Your task to perform on an android device: Search for seafood restaurants on Google Maps Image 0: 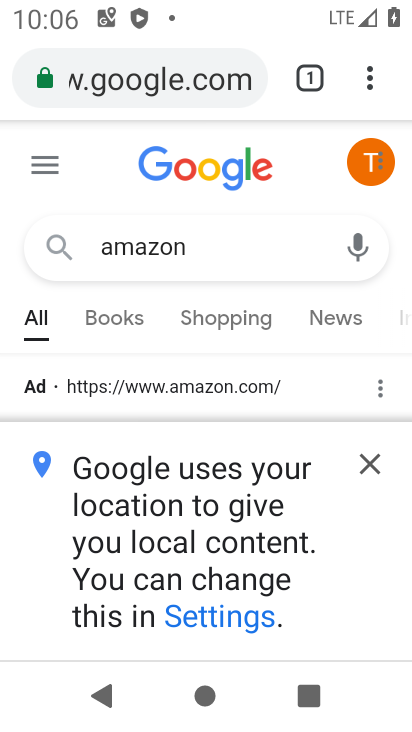
Step 0: press home button
Your task to perform on an android device: Search for seafood restaurants on Google Maps Image 1: 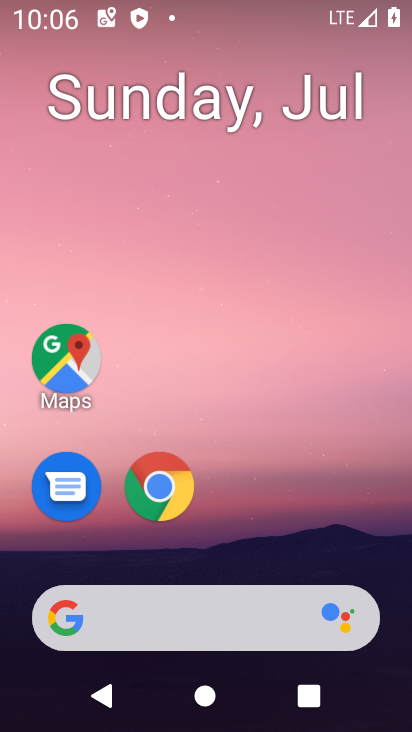
Step 1: drag from (376, 514) to (408, 590)
Your task to perform on an android device: Search for seafood restaurants on Google Maps Image 2: 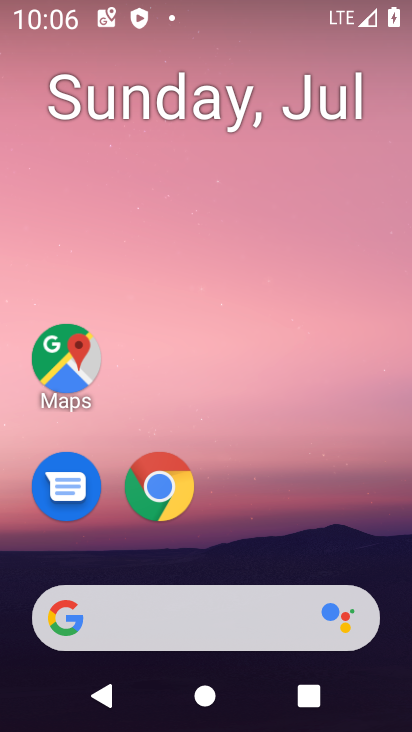
Step 2: click (349, 653)
Your task to perform on an android device: Search for seafood restaurants on Google Maps Image 3: 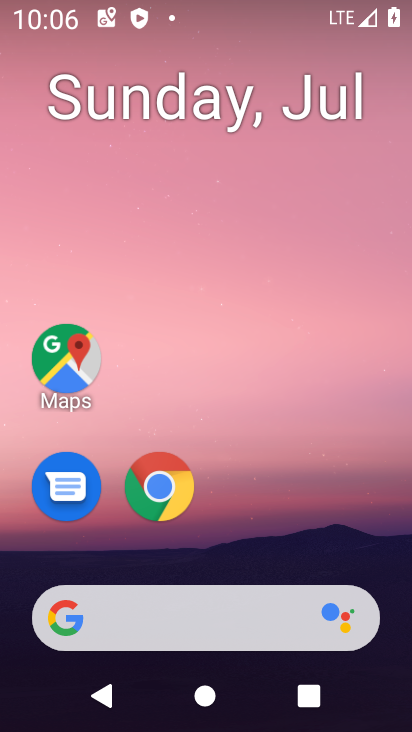
Step 3: drag from (355, 669) to (356, 81)
Your task to perform on an android device: Search for seafood restaurants on Google Maps Image 4: 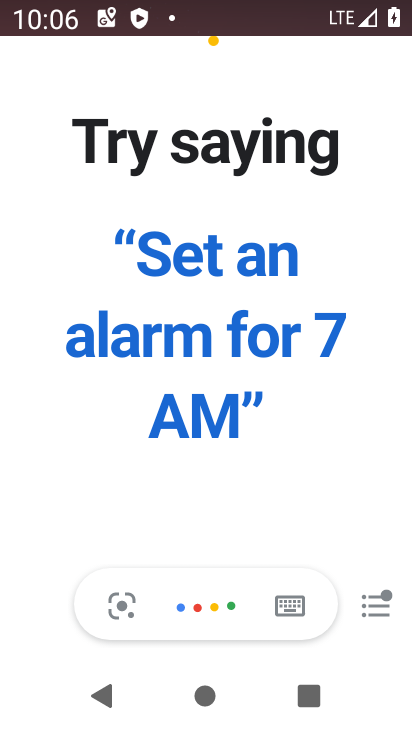
Step 4: press back button
Your task to perform on an android device: Search for seafood restaurants on Google Maps Image 5: 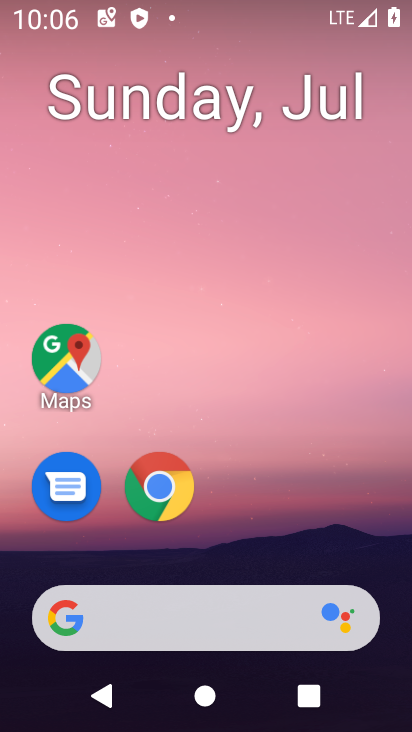
Step 5: drag from (374, 545) to (362, 36)
Your task to perform on an android device: Search for seafood restaurants on Google Maps Image 6: 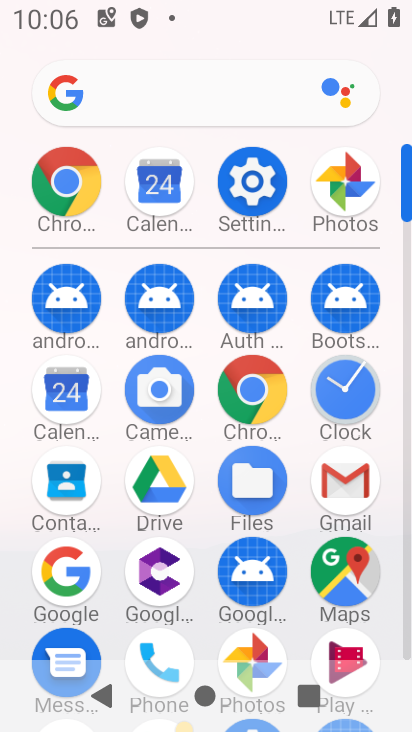
Step 6: click (337, 579)
Your task to perform on an android device: Search for seafood restaurants on Google Maps Image 7: 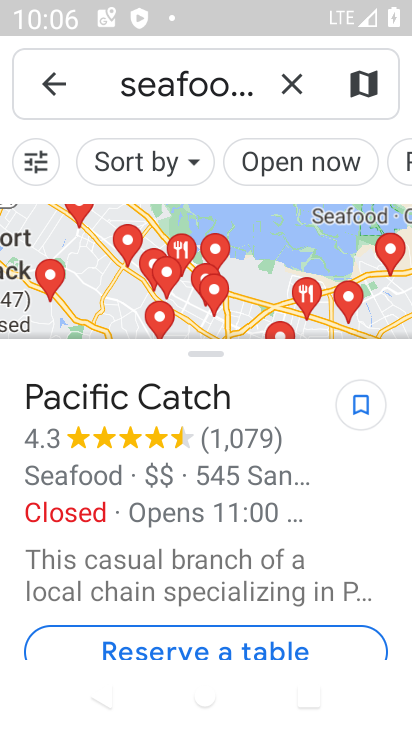
Step 7: task complete